Your task to perform on an android device: turn off translation in the chrome app Image 0: 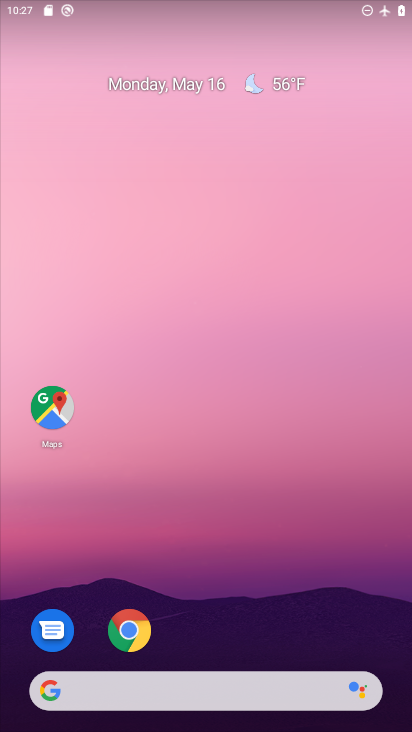
Step 0: click (142, 631)
Your task to perform on an android device: turn off translation in the chrome app Image 1: 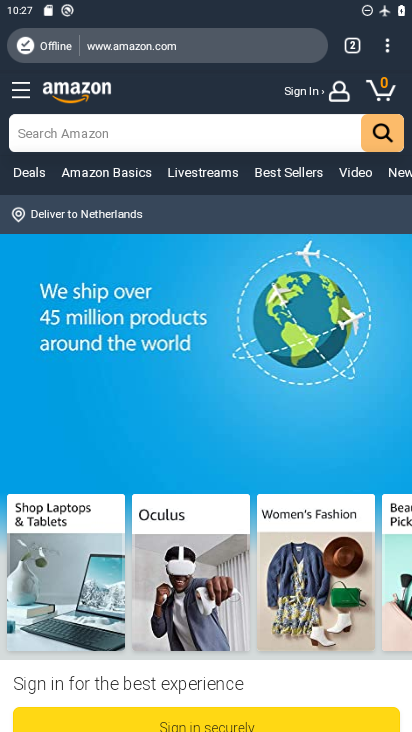
Step 1: click (386, 58)
Your task to perform on an android device: turn off translation in the chrome app Image 2: 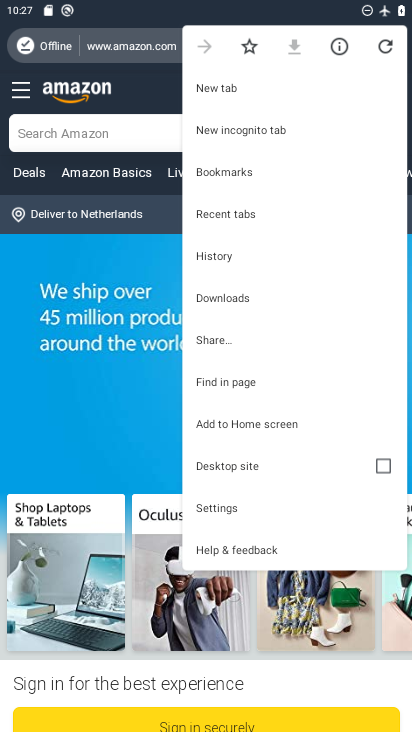
Step 2: click (240, 506)
Your task to perform on an android device: turn off translation in the chrome app Image 3: 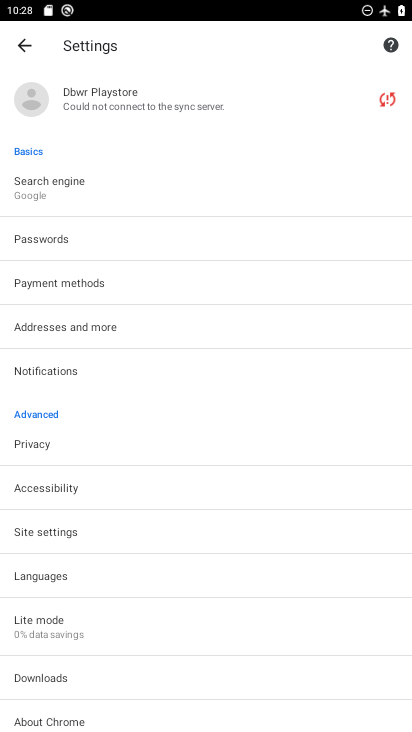
Step 3: click (63, 580)
Your task to perform on an android device: turn off translation in the chrome app Image 4: 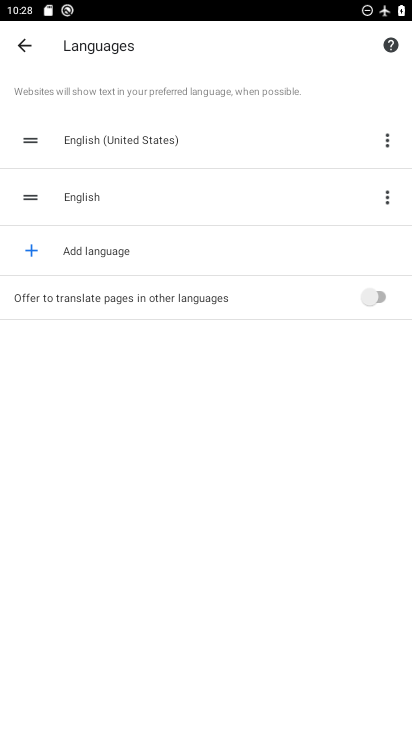
Step 4: task complete